Your task to perform on an android device: Search for "bose quietcomfort 35" on bestbuy, select the first entry, add it to the cart, then select checkout. Image 0: 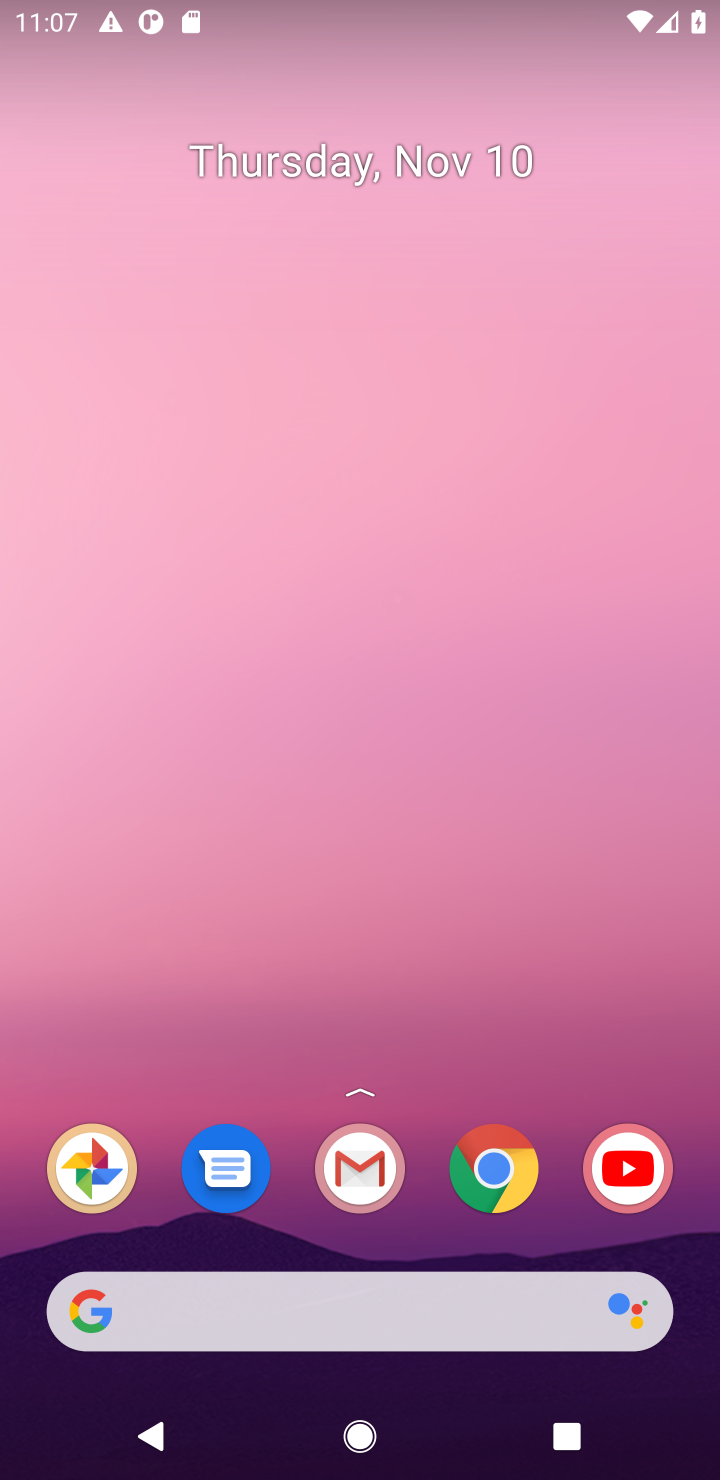
Step 0: click (487, 1187)
Your task to perform on an android device: Search for "bose quietcomfort 35" on bestbuy, select the first entry, add it to the cart, then select checkout. Image 1: 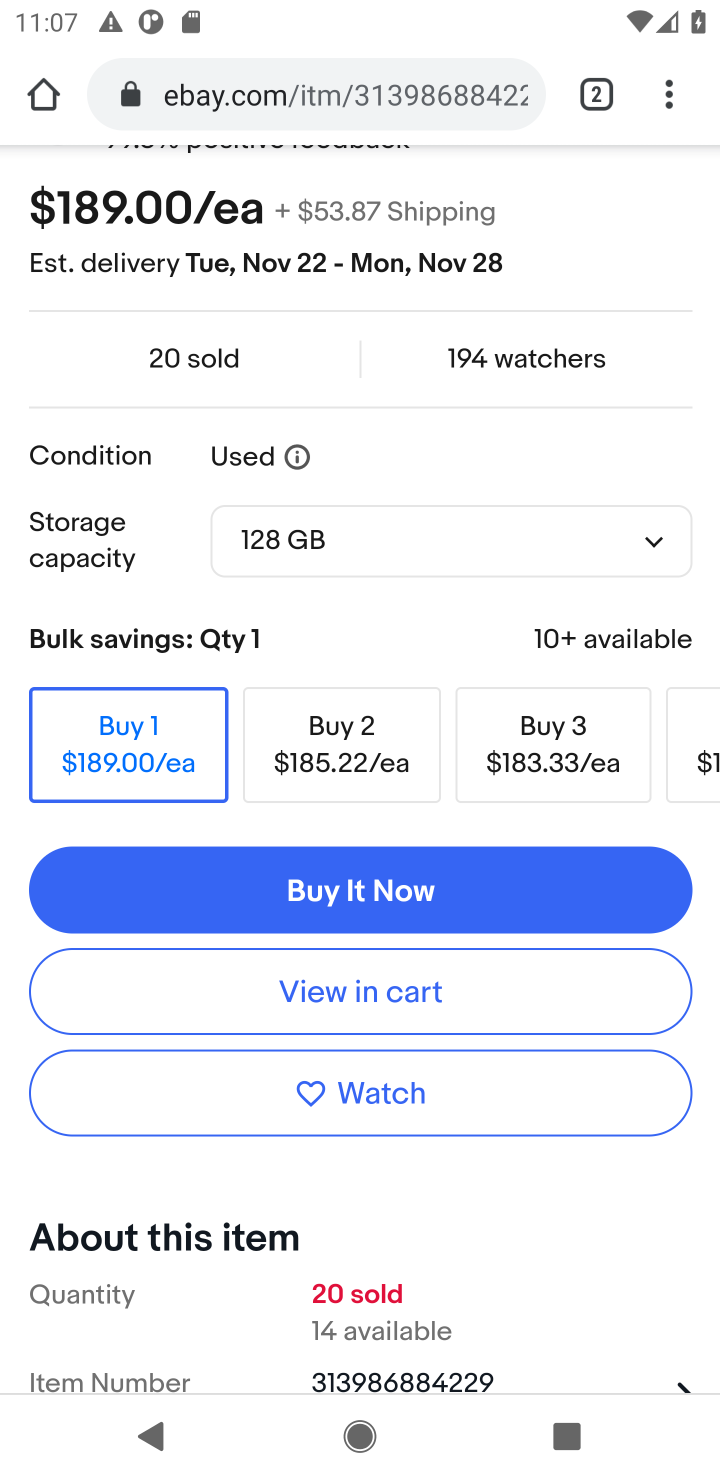
Step 1: click (334, 106)
Your task to perform on an android device: Search for "bose quietcomfort 35" on bestbuy, select the first entry, add it to the cart, then select checkout. Image 2: 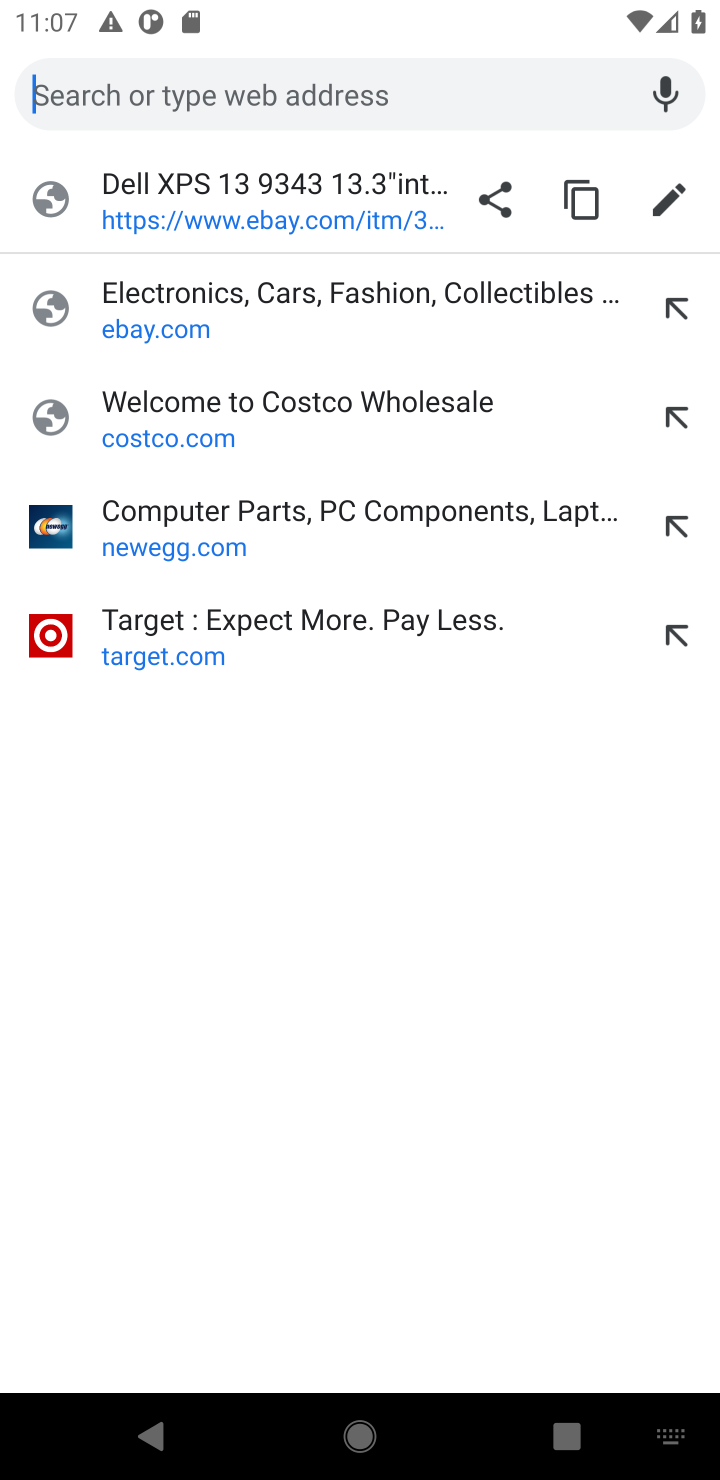
Step 2: type "bestbuy.com"
Your task to perform on an android device: Search for "bose quietcomfort 35" on bestbuy, select the first entry, add it to the cart, then select checkout. Image 3: 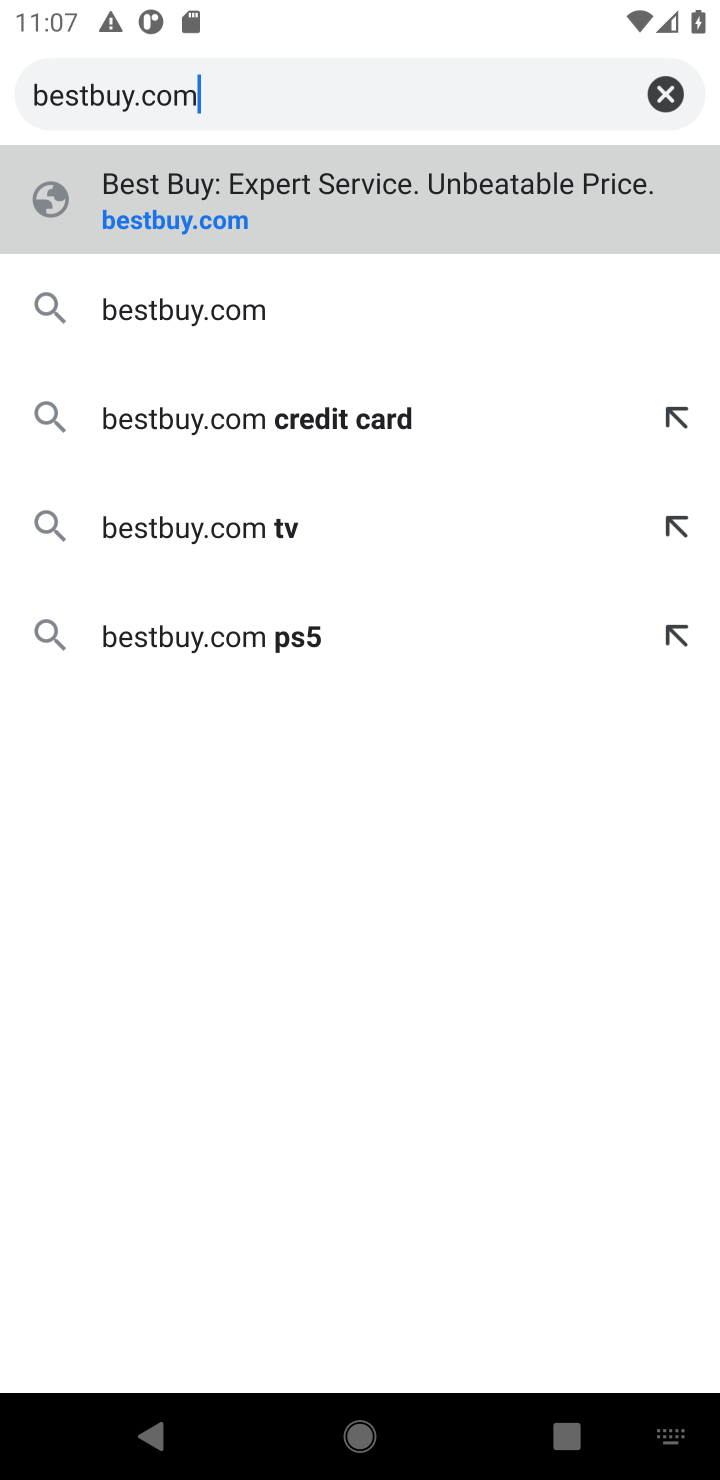
Step 3: click (137, 233)
Your task to perform on an android device: Search for "bose quietcomfort 35" on bestbuy, select the first entry, add it to the cart, then select checkout. Image 4: 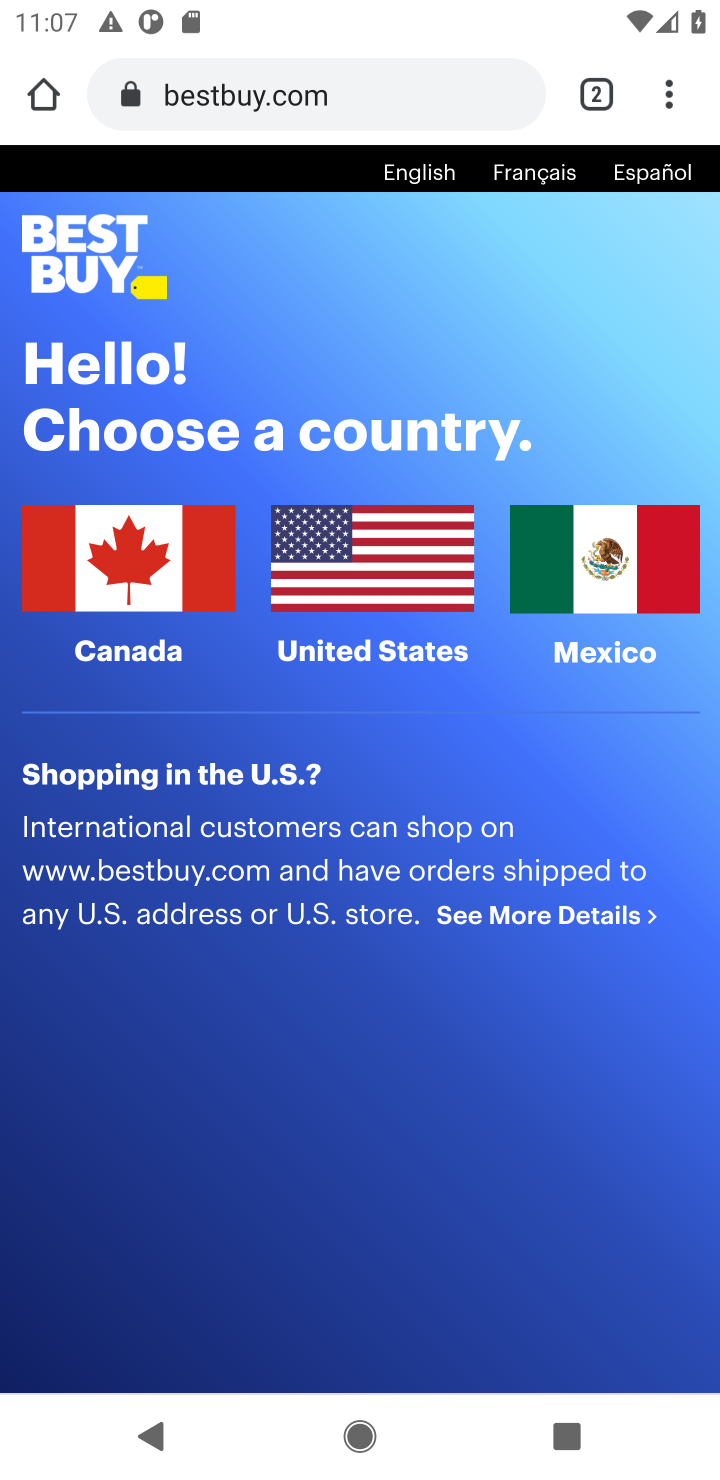
Step 4: click (370, 563)
Your task to perform on an android device: Search for "bose quietcomfort 35" on bestbuy, select the first entry, add it to the cart, then select checkout. Image 5: 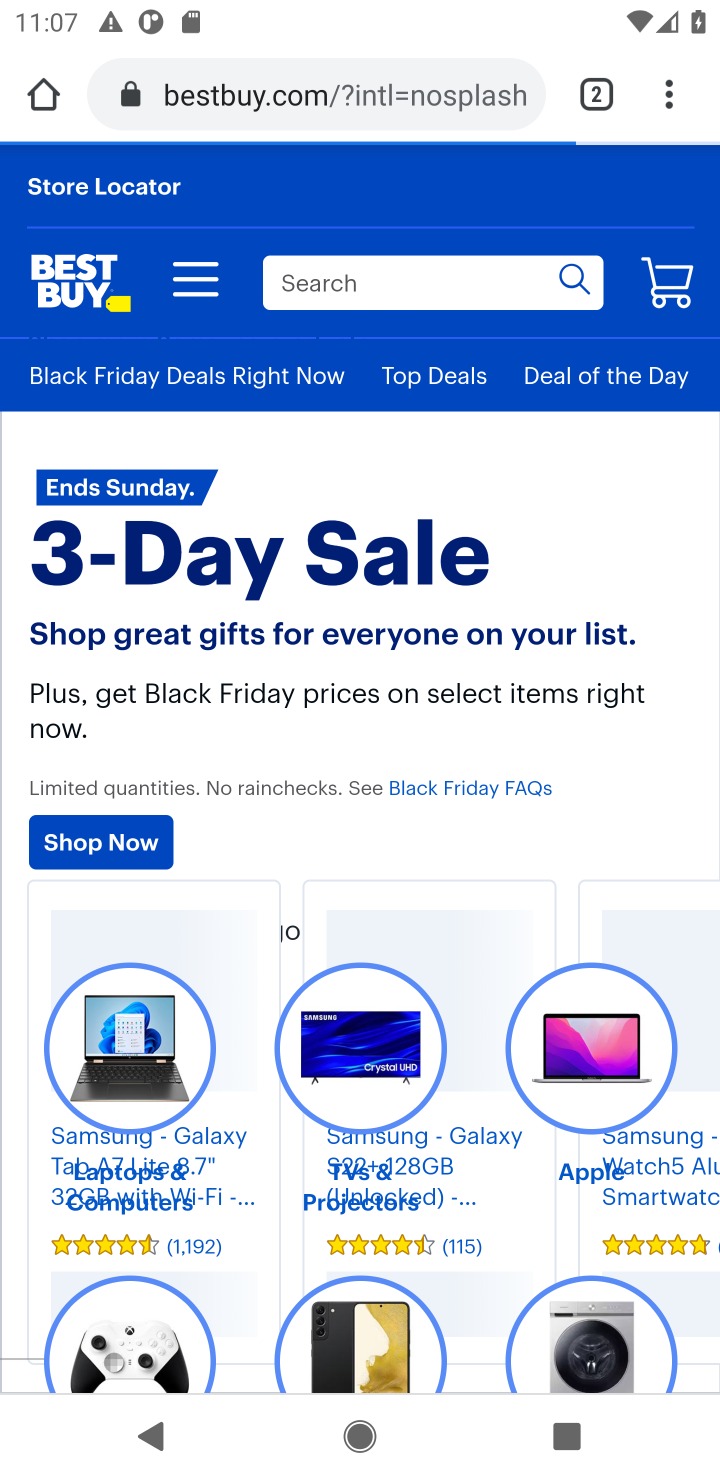
Step 5: click (328, 286)
Your task to perform on an android device: Search for "bose quietcomfort 35" on bestbuy, select the first entry, add it to the cart, then select checkout. Image 6: 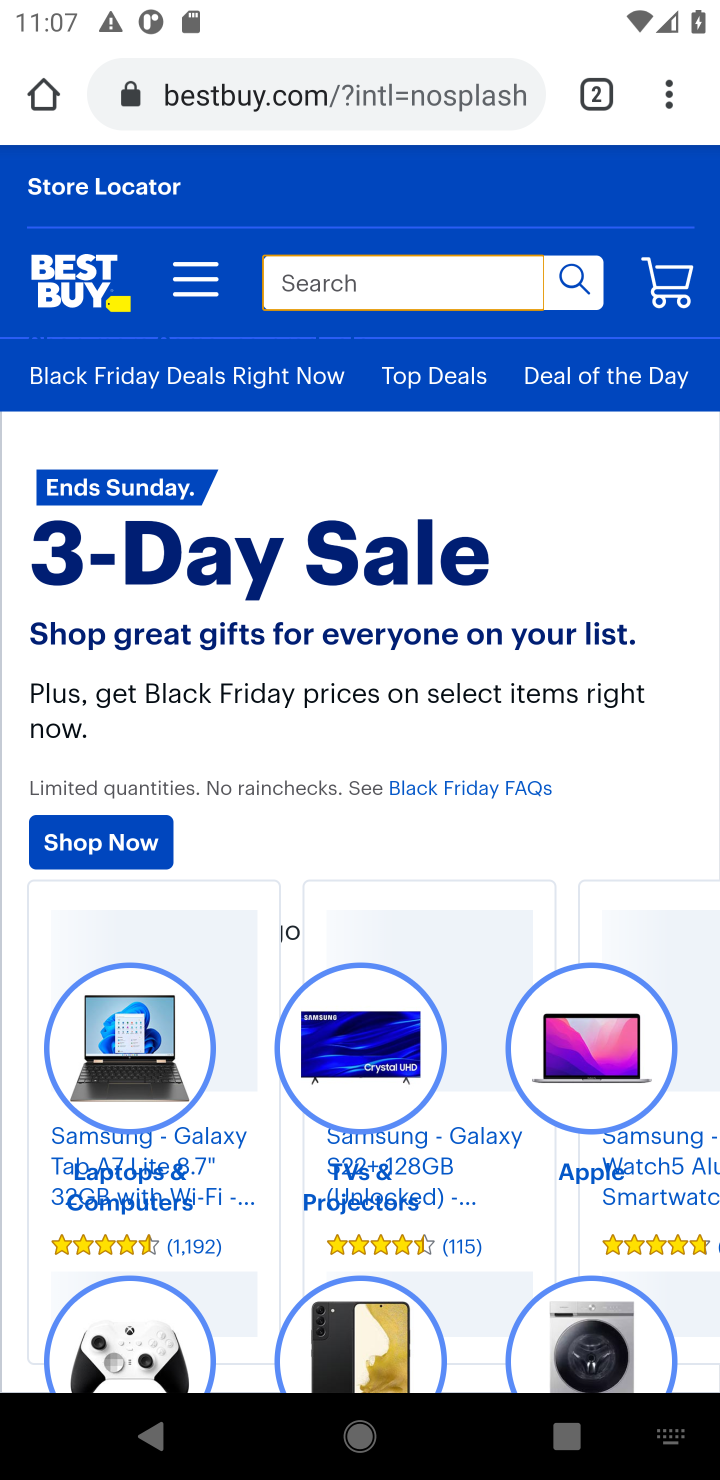
Step 6: type "bose quietcomfort 35"
Your task to perform on an android device: Search for "bose quietcomfort 35" on bestbuy, select the first entry, add it to the cart, then select checkout. Image 7: 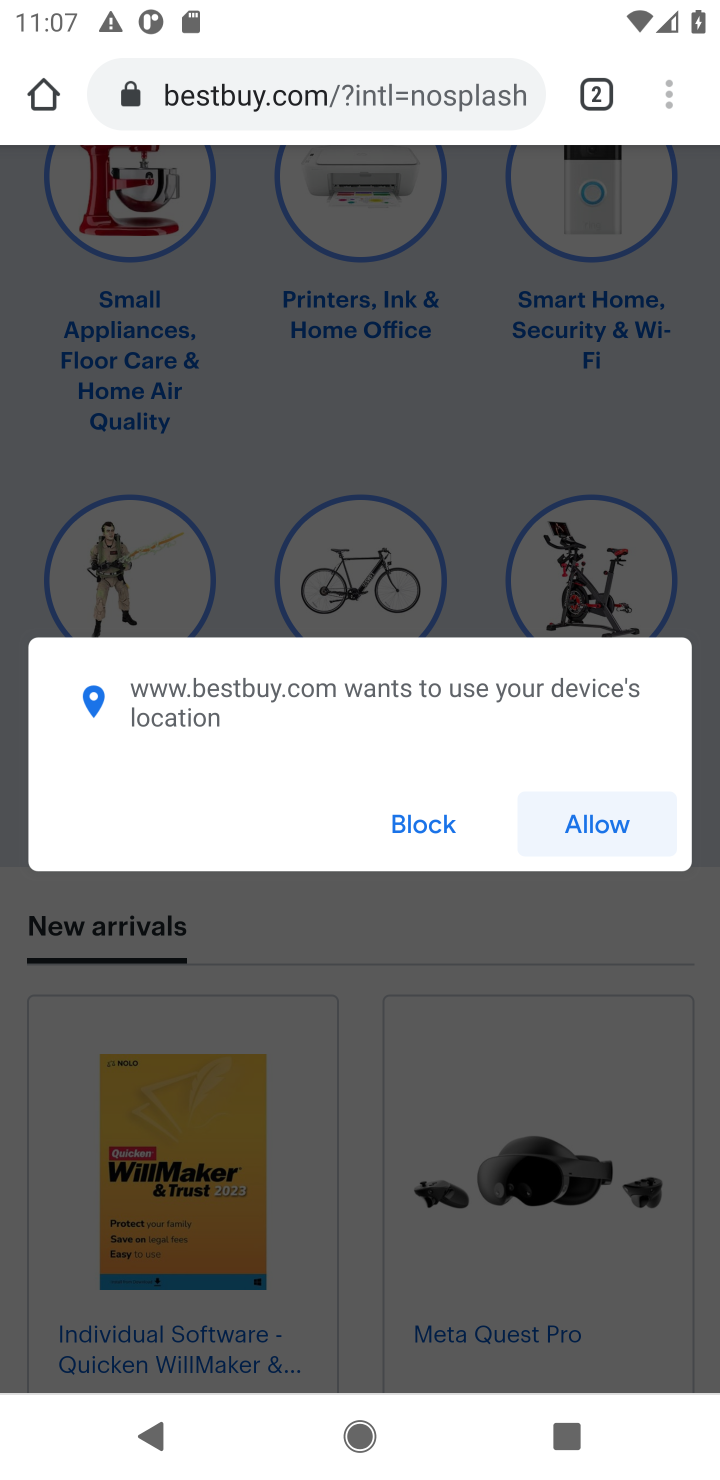
Step 7: click (386, 825)
Your task to perform on an android device: Search for "bose quietcomfort 35" on bestbuy, select the first entry, add it to the cart, then select checkout. Image 8: 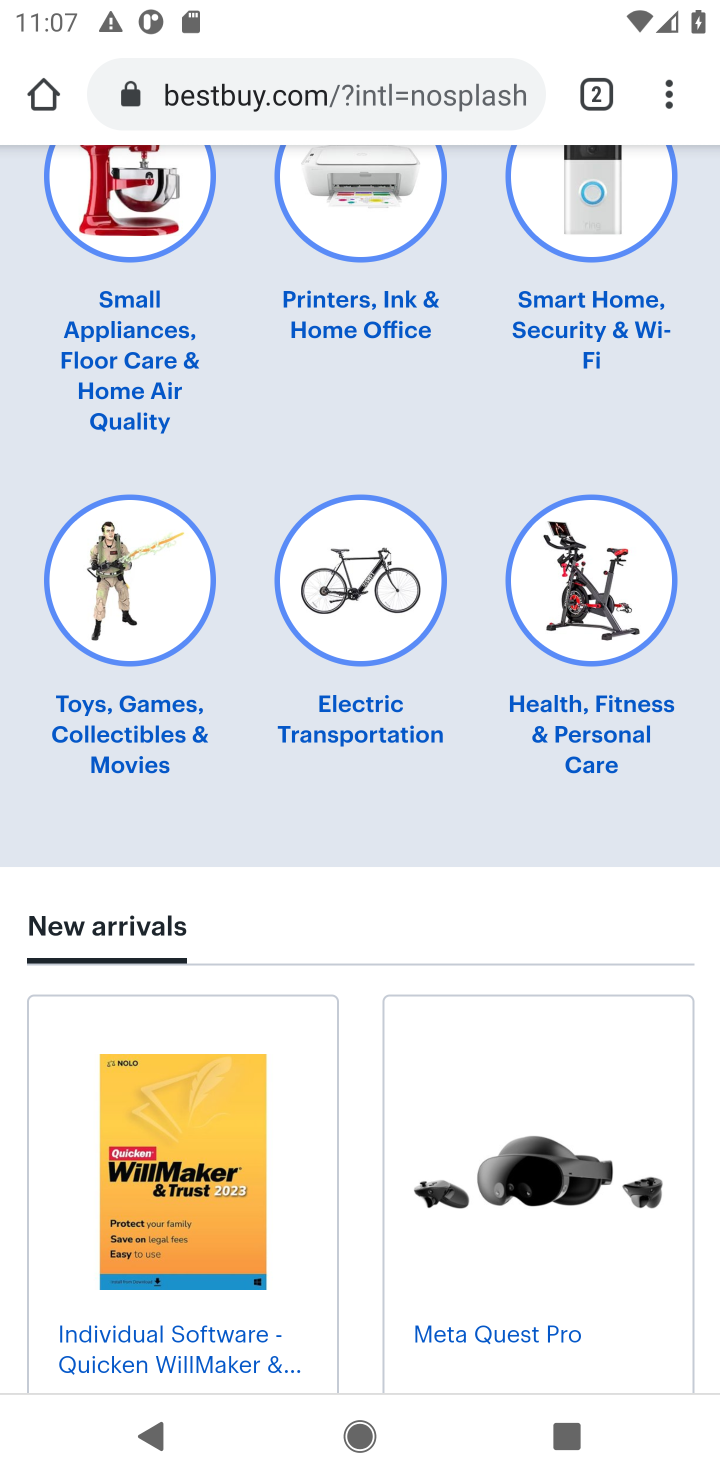
Step 8: drag from (275, 462) to (214, 1184)
Your task to perform on an android device: Search for "bose quietcomfort 35" on bestbuy, select the first entry, add it to the cart, then select checkout. Image 9: 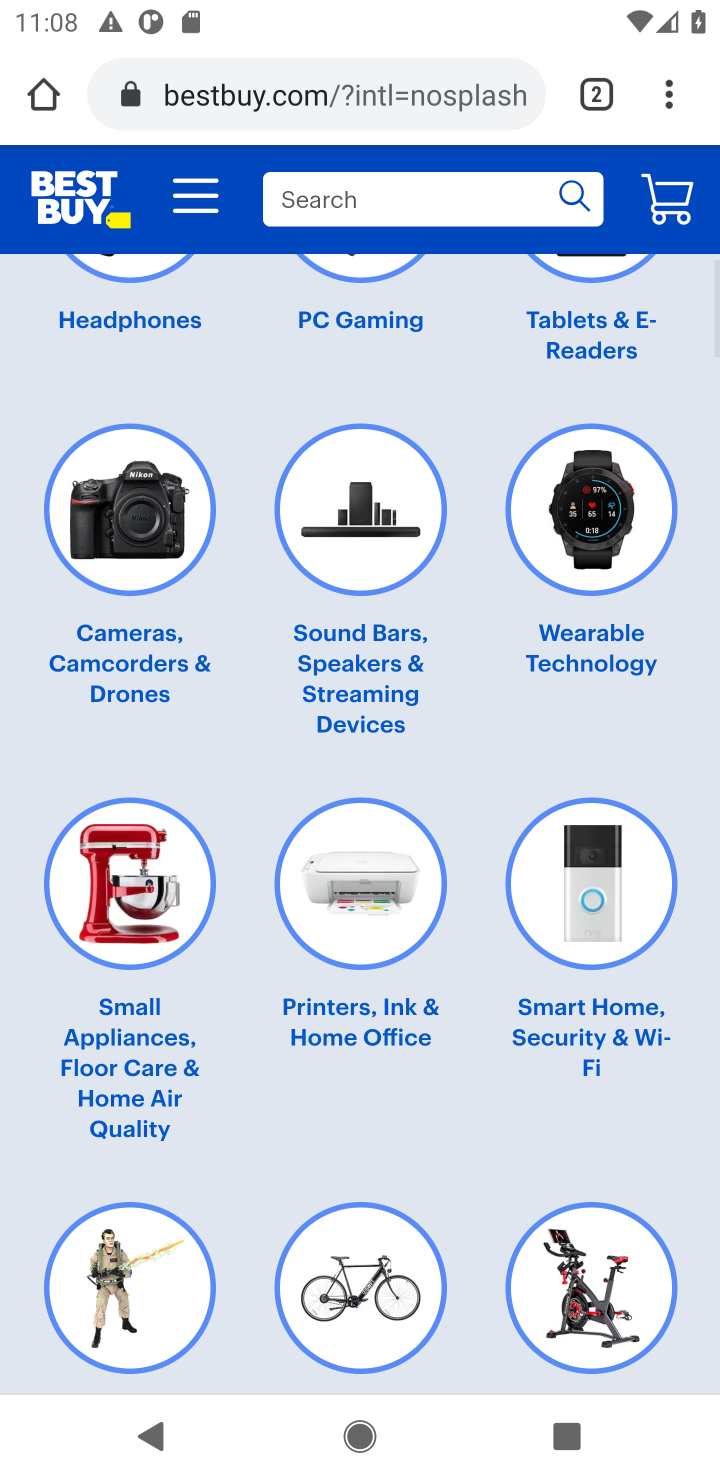
Step 9: drag from (239, 485) to (241, 761)
Your task to perform on an android device: Search for "bose quietcomfort 35" on bestbuy, select the first entry, add it to the cart, then select checkout. Image 10: 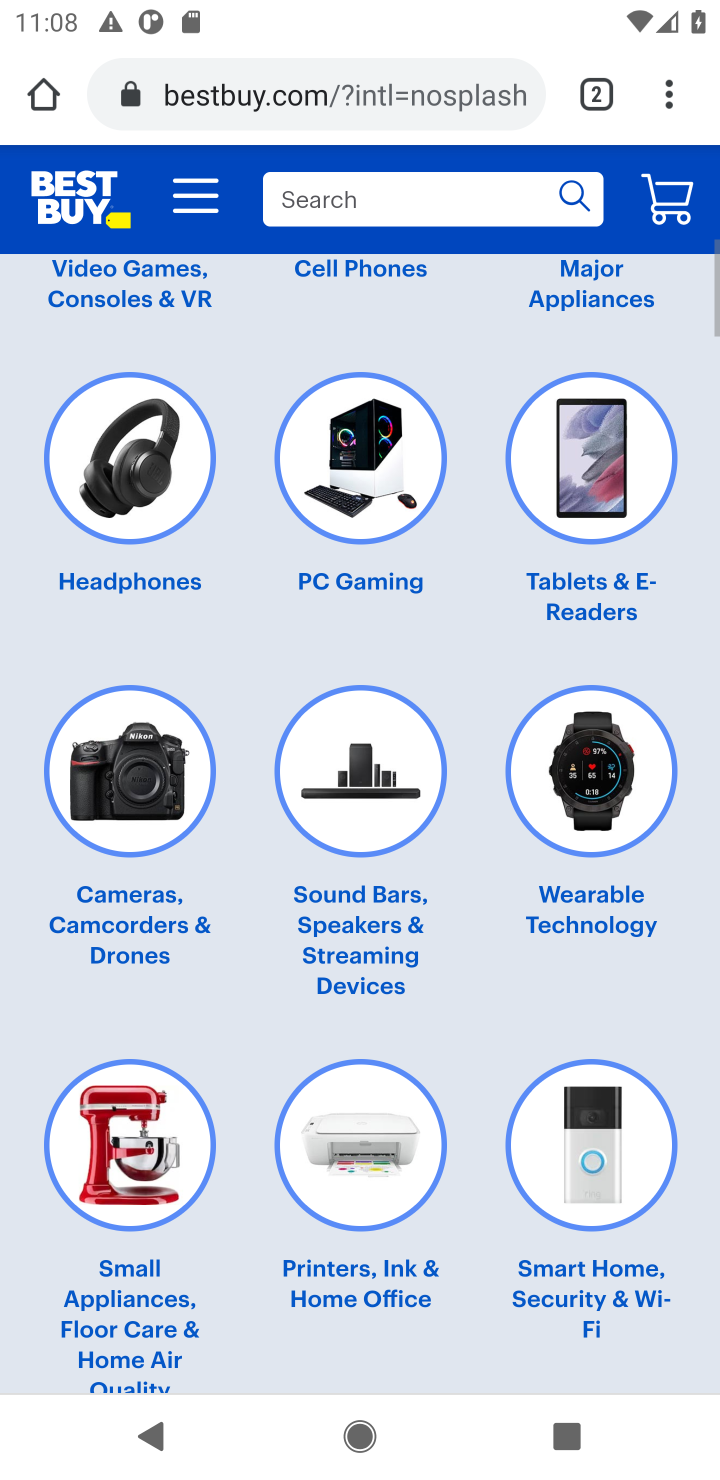
Step 10: click (367, 199)
Your task to perform on an android device: Search for "bose quietcomfort 35" on bestbuy, select the first entry, add it to the cart, then select checkout. Image 11: 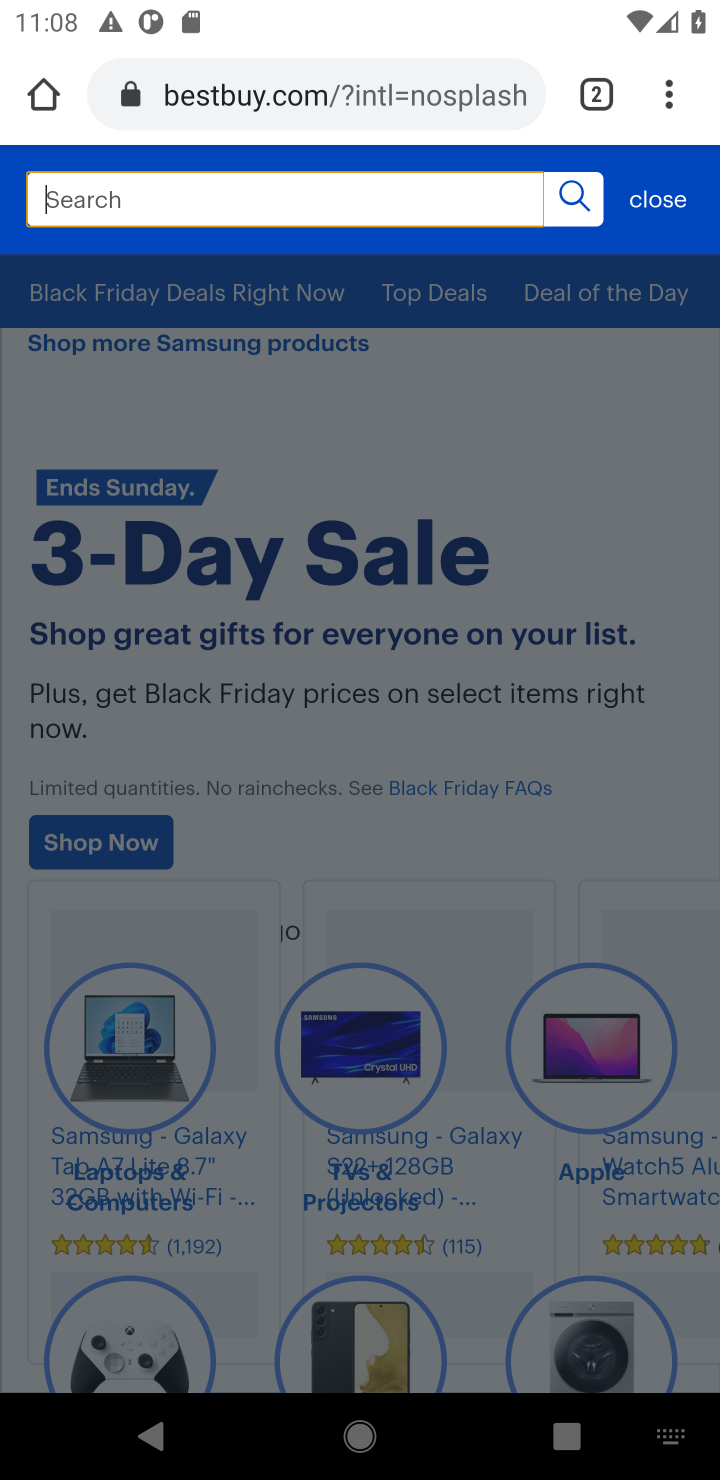
Step 11: type "bose quietcomfort 35"
Your task to perform on an android device: Search for "bose quietcomfort 35" on bestbuy, select the first entry, add it to the cart, then select checkout. Image 12: 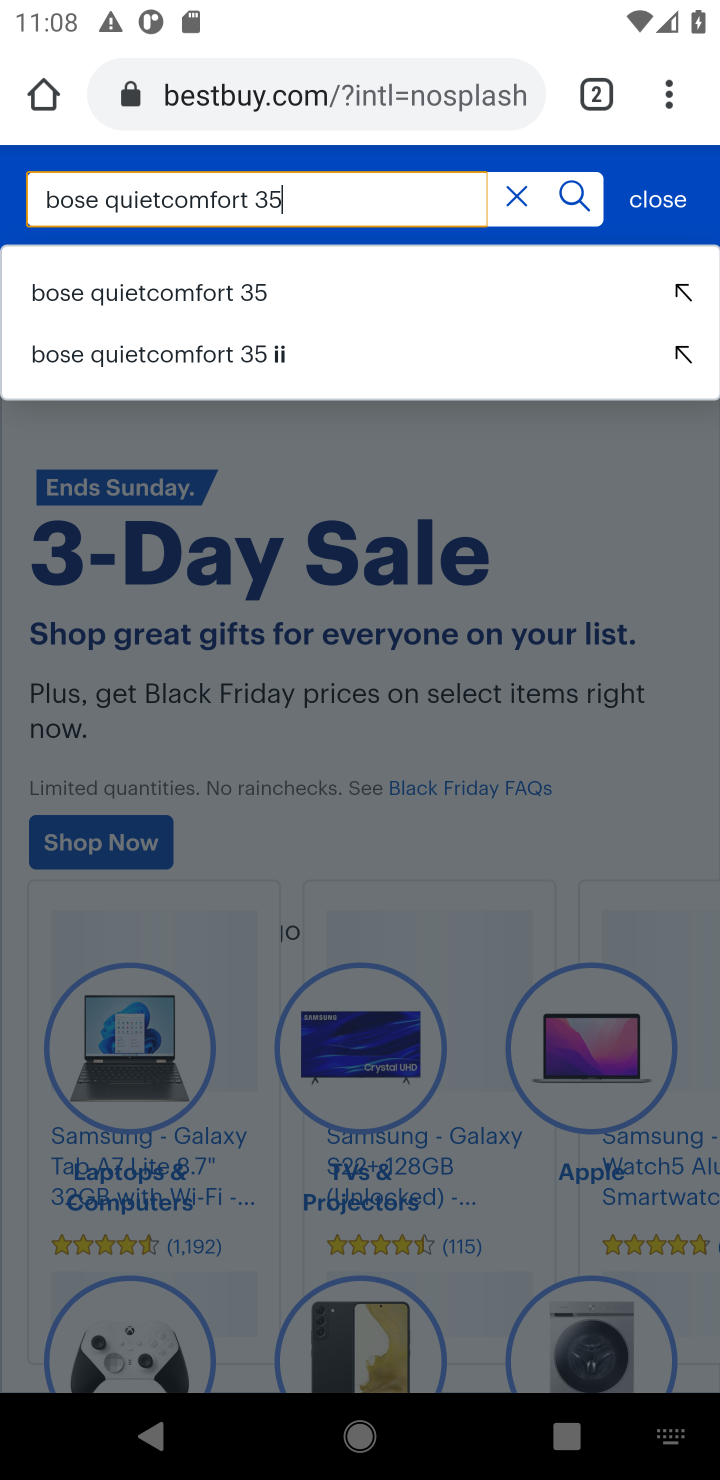
Step 12: click (214, 299)
Your task to perform on an android device: Search for "bose quietcomfort 35" on bestbuy, select the first entry, add it to the cart, then select checkout. Image 13: 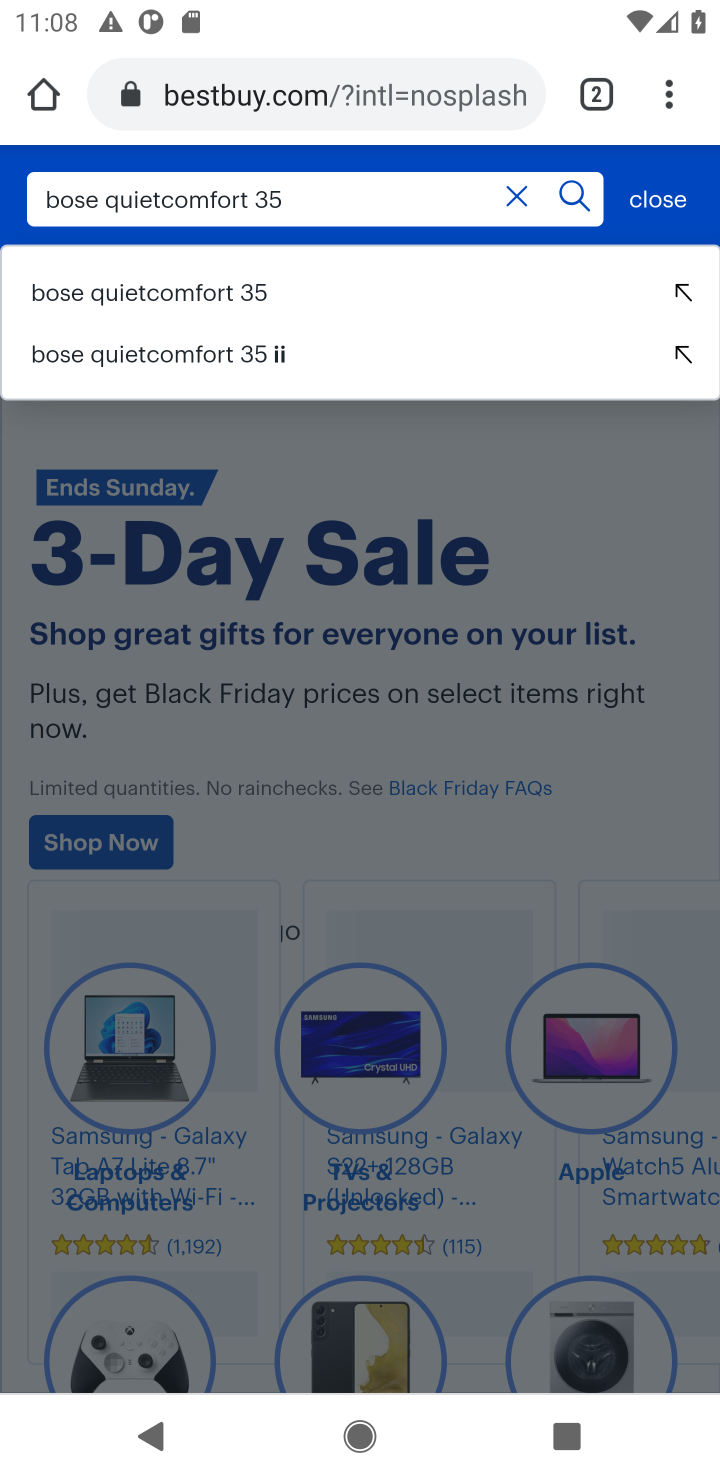
Step 13: click (157, 302)
Your task to perform on an android device: Search for "bose quietcomfort 35" on bestbuy, select the first entry, add it to the cart, then select checkout. Image 14: 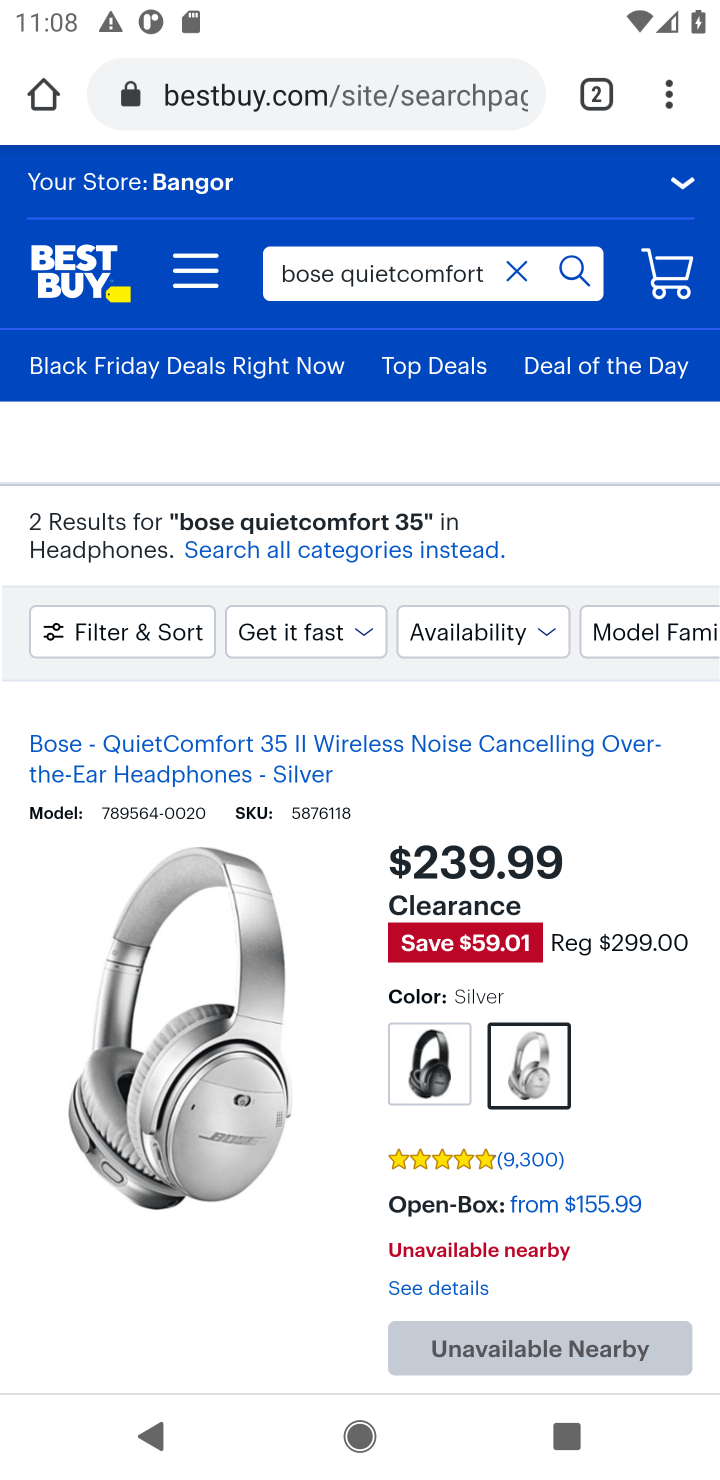
Step 14: drag from (243, 1012) to (216, 694)
Your task to perform on an android device: Search for "bose quietcomfort 35" on bestbuy, select the first entry, add it to the cart, then select checkout. Image 15: 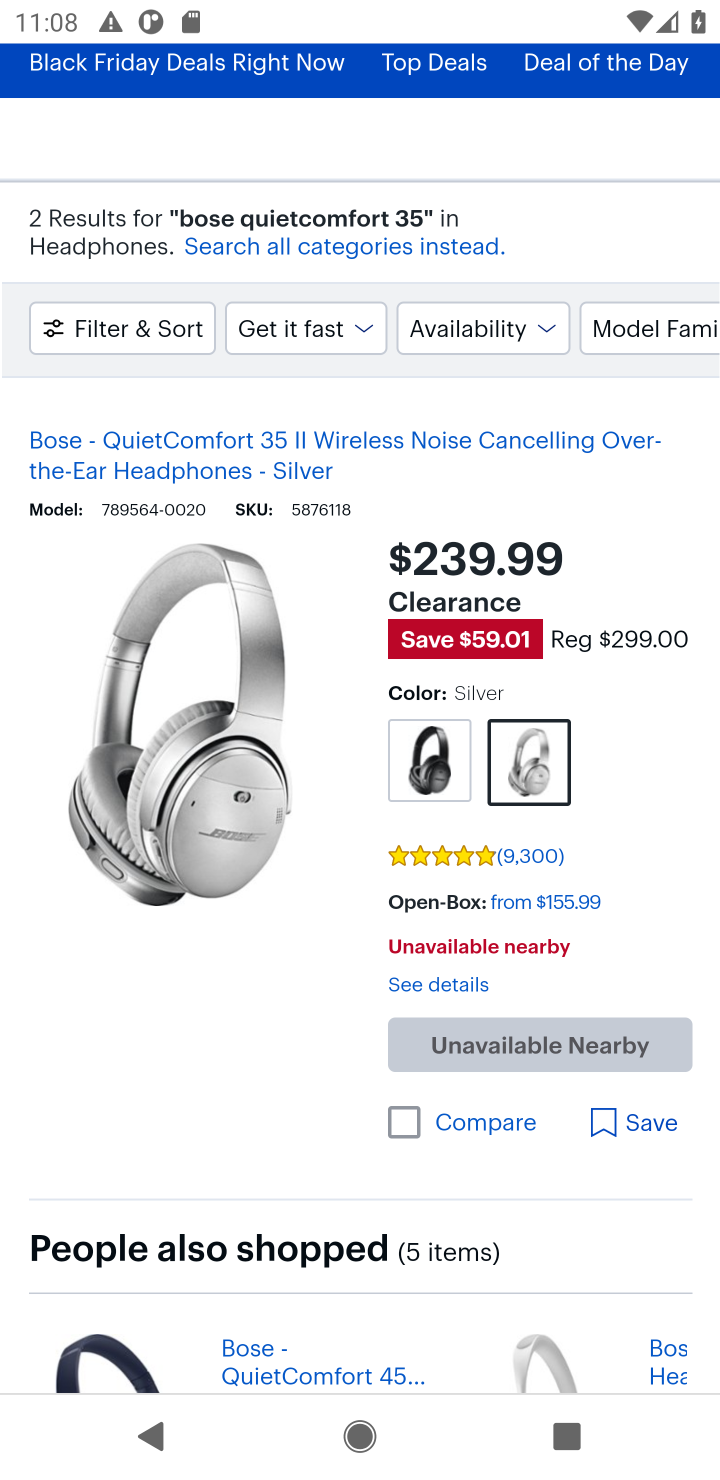
Step 15: click (172, 833)
Your task to perform on an android device: Search for "bose quietcomfort 35" on bestbuy, select the first entry, add it to the cart, then select checkout. Image 16: 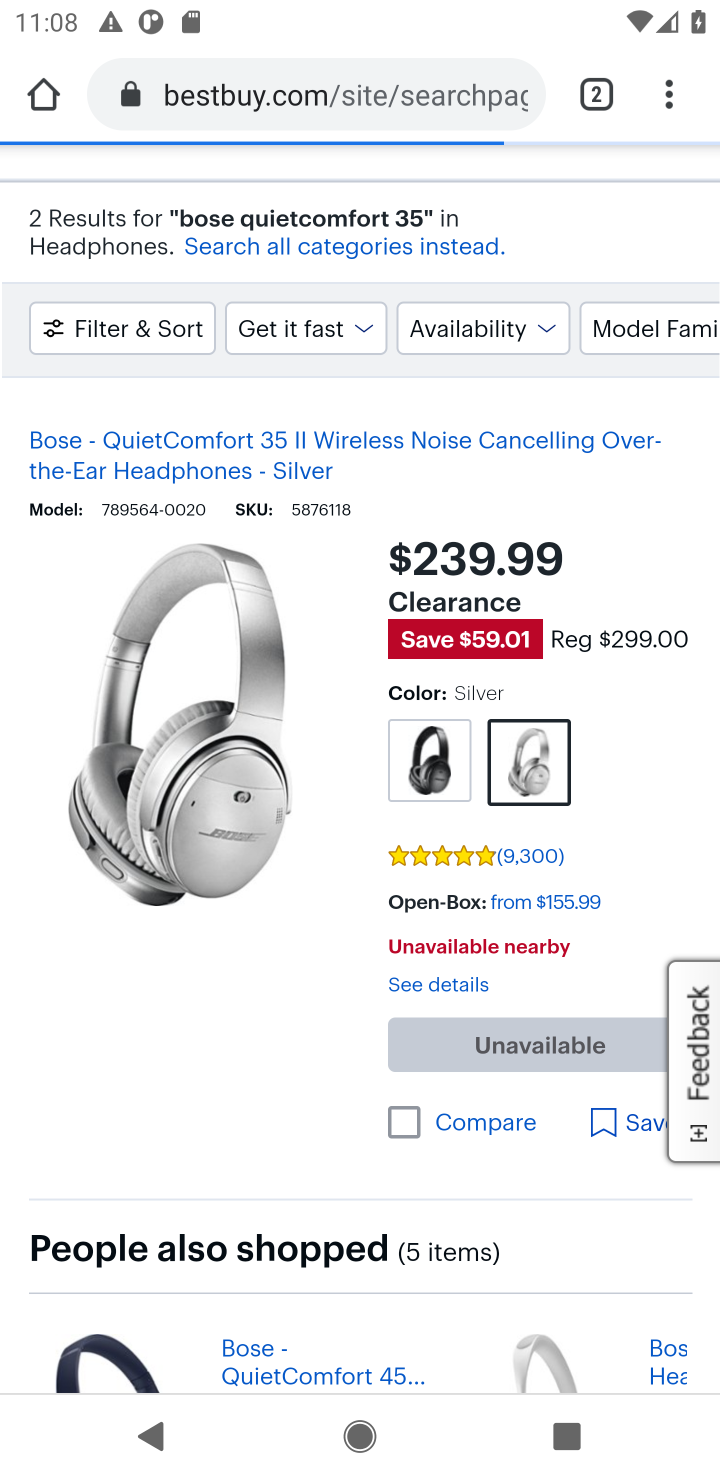
Step 16: task complete